Your task to perform on an android device: Open settings on Google Maps Image 0: 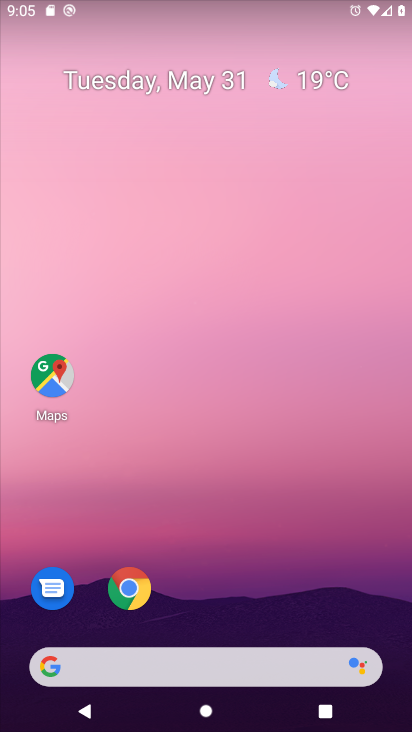
Step 0: press home button
Your task to perform on an android device: Open settings on Google Maps Image 1: 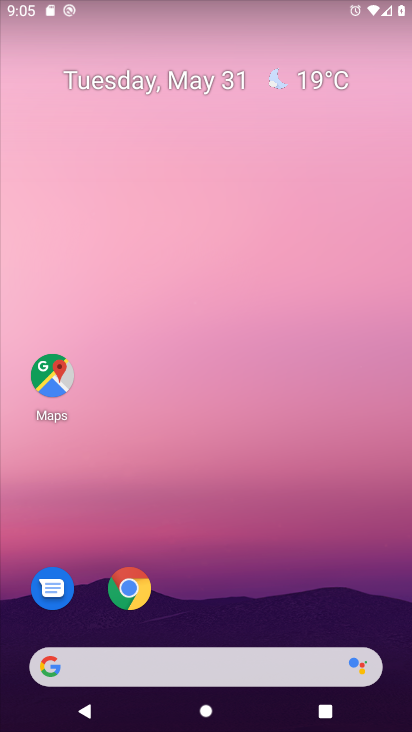
Step 1: click (49, 382)
Your task to perform on an android device: Open settings on Google Maps Image 2: 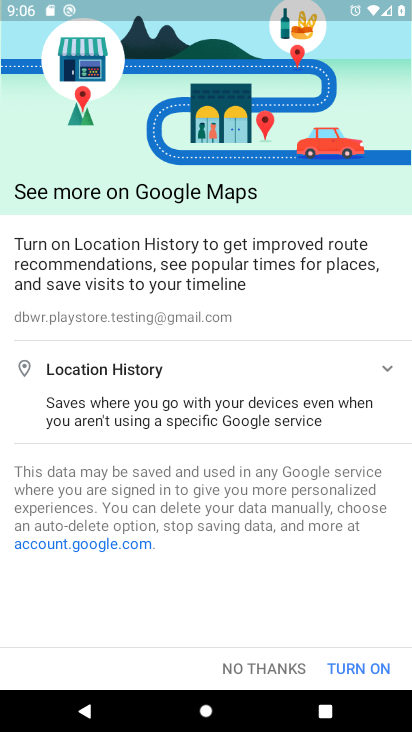
Step 2: click (236, 662)
Your task to perform on an android device: Open settings on Google Maps Image 3: 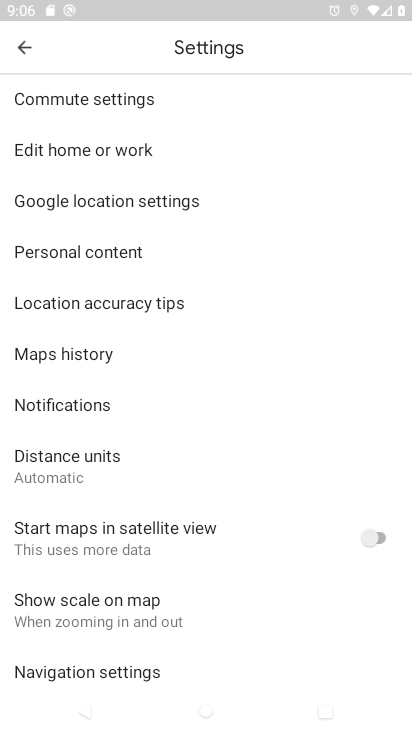
Step 3: task complete